Your task to perform on an android device: toggle wifi Image 0: 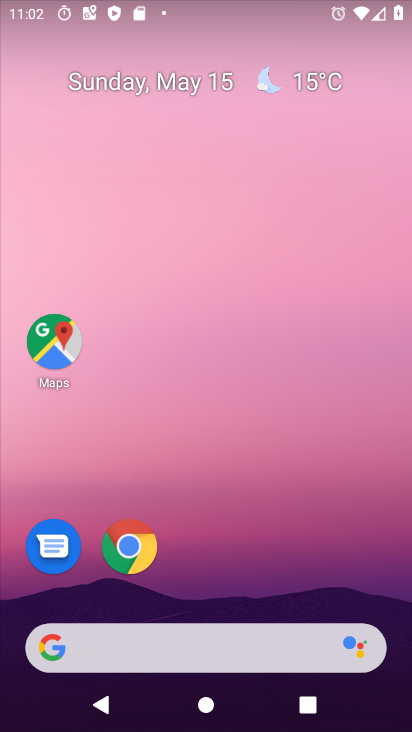
Step 0: drag from (357, 649) to (200, 86)
Your task to perform on an android device: toggle wifi Image 1: 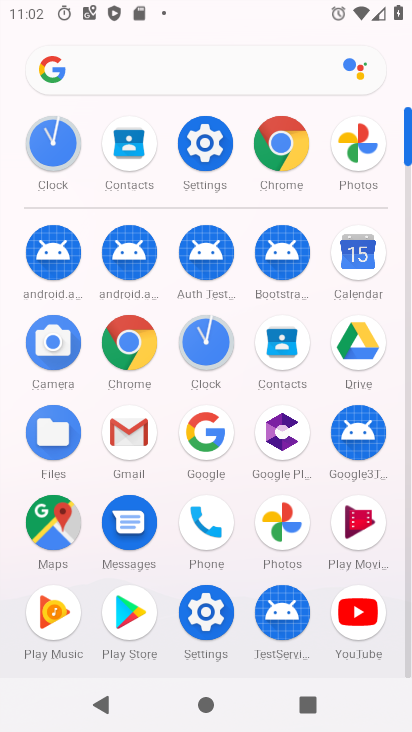
Step 1: click (192, 143)
Your task to perform on an android device: toggle wifi Image 2: 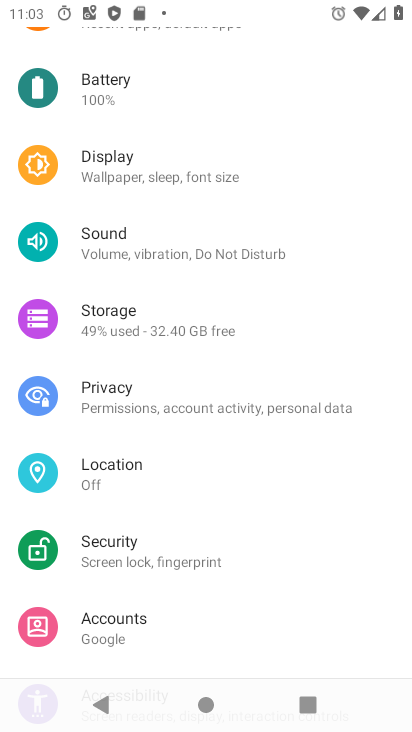
Step 2: drag from (112, 116) to (177, 521)
Your task to perform on an android device: toggle wifi Image 3: 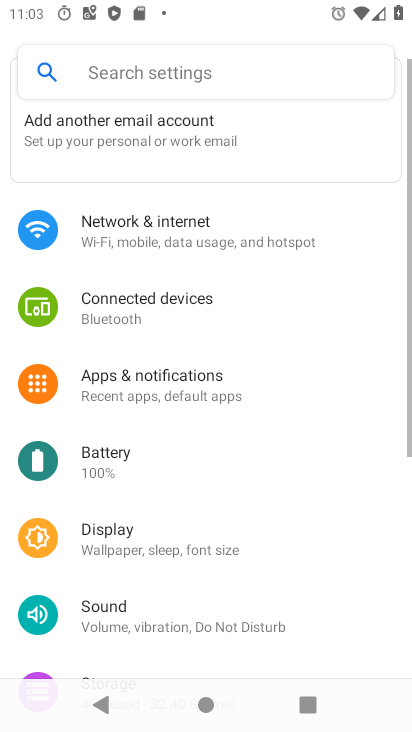
Step 3: drag from (207, 156) to (190, 551)
Your task to perform on an android device: toggle wifi Image 4: 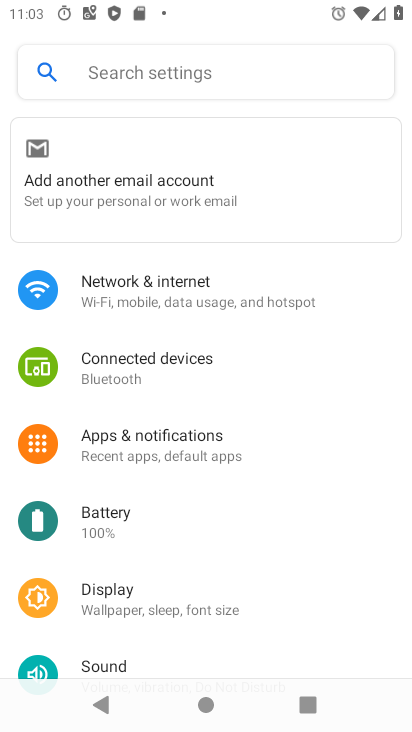
Step 4: click (139, 286)
Your task to perform on an android device: toggle wifi Image 5: 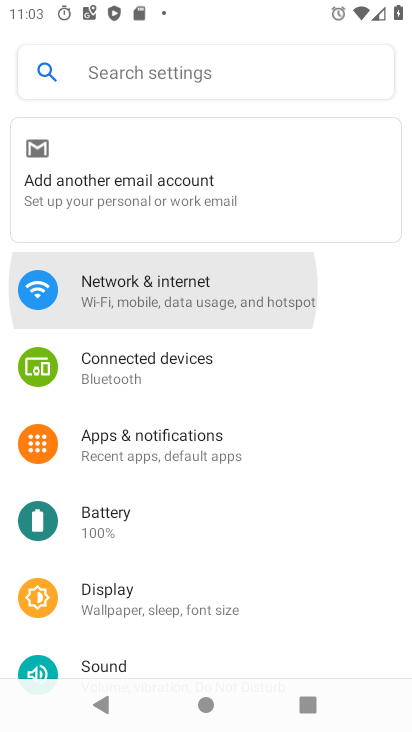
Step 5: click (146, 292)
Your task to perform on an android device: toggle wifi Image 6: 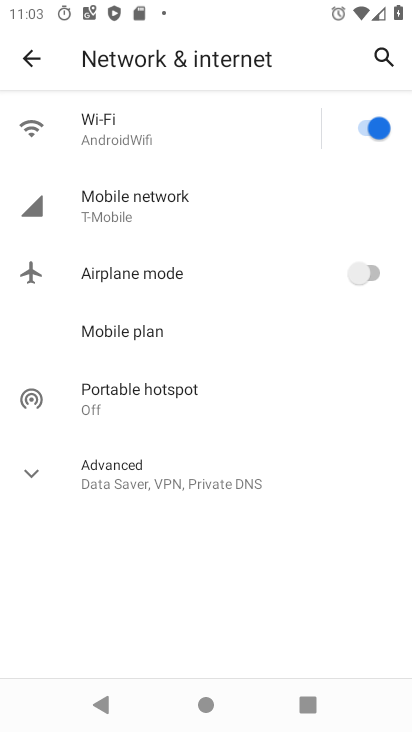
Step 6: click (376, 130)
Your task to perform on an android device: toggle wifi Image 7: 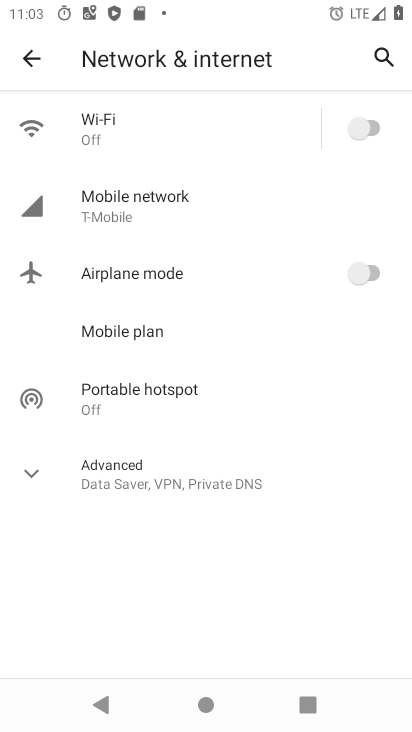
Step 7: task complete